Your task to perform on an android device: Open Google Maps and go to "Timeline" Image 0: 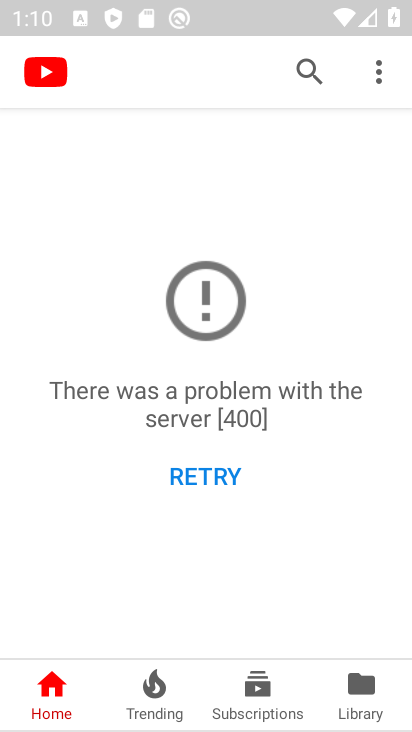
Step 0: press home button
Your task to perform on an android device: Open Google Maps and go to "Timeline" Image 1: 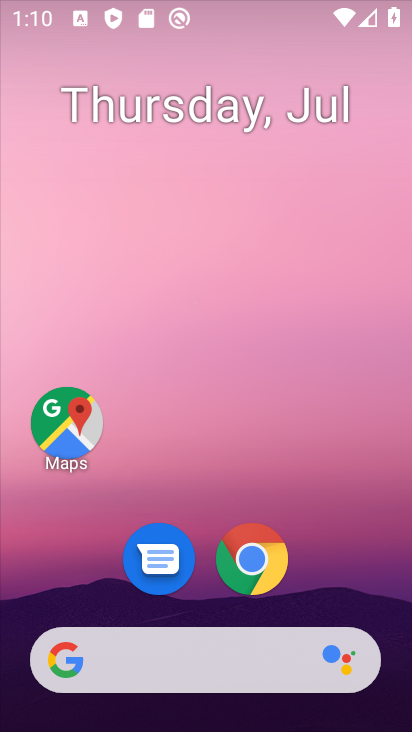
Step 1: drag from (256, 659) to (323, 199)
Your task to perform on an android device: Open Google Maps and go to "Timeline" Image 2: 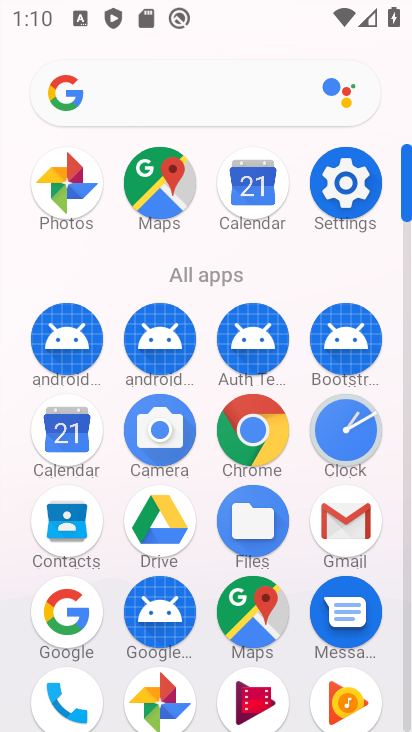
Step 2: click (241, 501)
Your task to perform on an android device: Open Google Maps and go to "Timeline" Image 3: 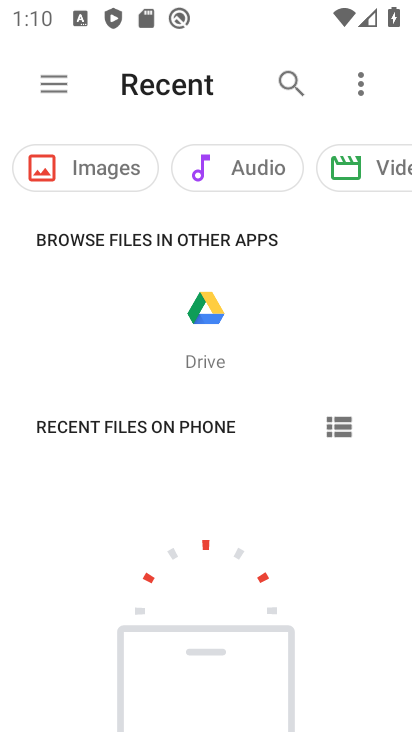
Step 3: press home button
Your task to perform on an android device: Open Google Maps and go to "Timeline" Image 4: 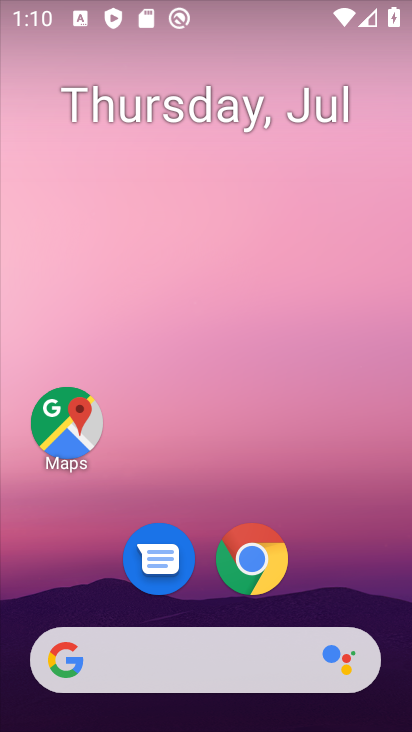
Step 4: drag from (217, 605) to (251, 107)
Your task to perform on an android device: Open Google Maps and go to "Timeline" Image 5: 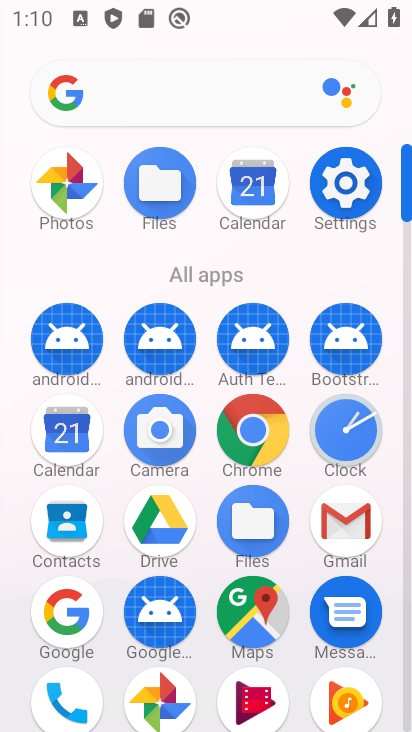
Step 5: click (258, 602)
Your task to perform on an android device: Open Google Maps and go to "Timeline" Image 6: 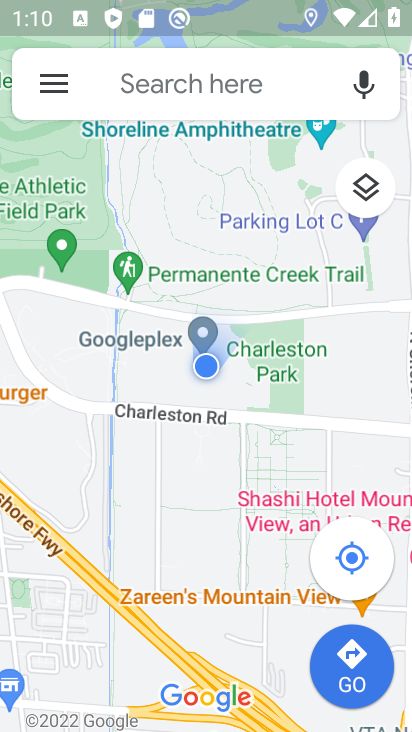
Step 6: click (53, 98)
Your task to perform on an android device: Open Google Maps and go to "Timeline" Image 7: 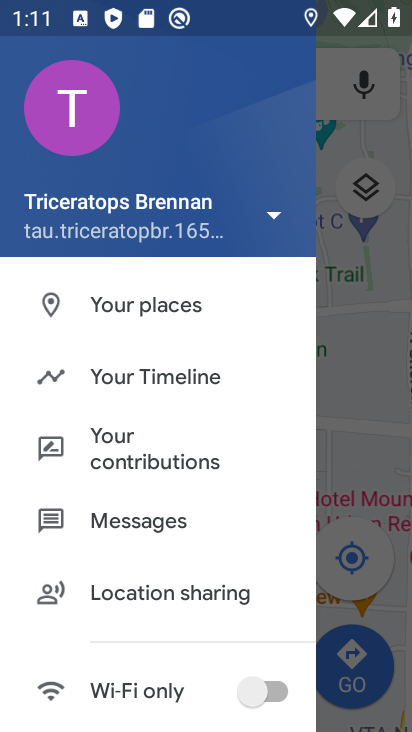
Step 7: click (142, 384)
Your task to perform on an android device: Open Google Maps and go to "Timeline" Image 8: 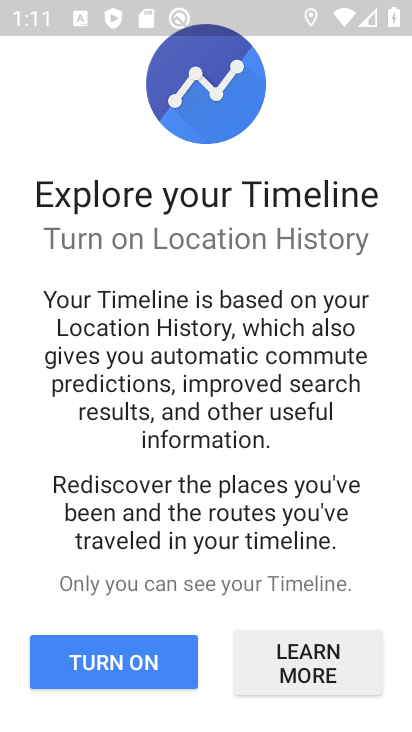
Step 8: click (63, 663)
Your task to perform on an android device: Open Google Maps and go to "Timeline" Image 9: 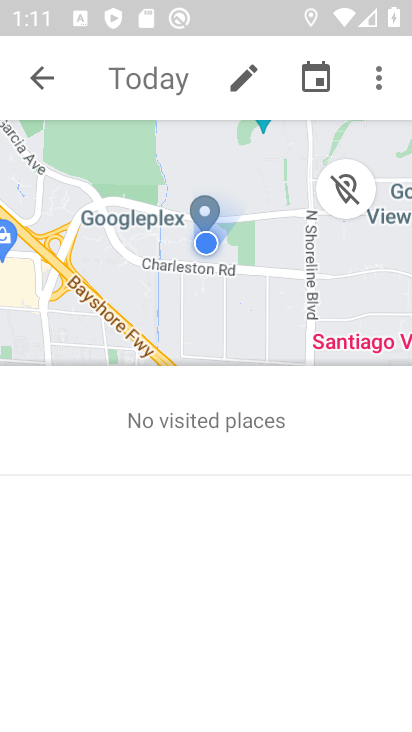
Step 9: task complete